Your task to perform on an android device: allow notifications from all sites in the chrome app Image 0: 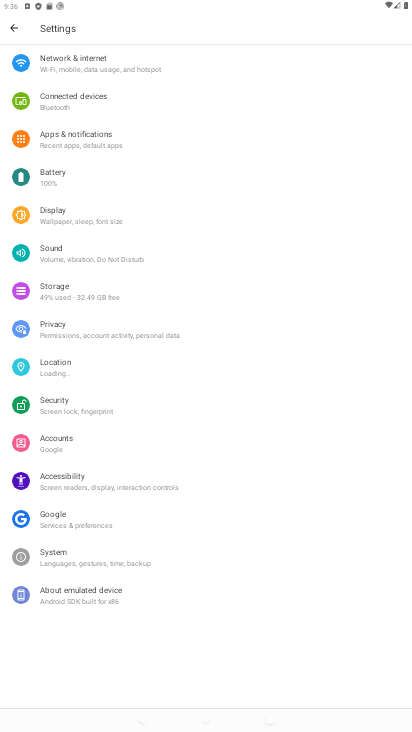
Step 0: press home button
Your task to perform on an android device: allow notifications from all sites in the chrome app Image 1: 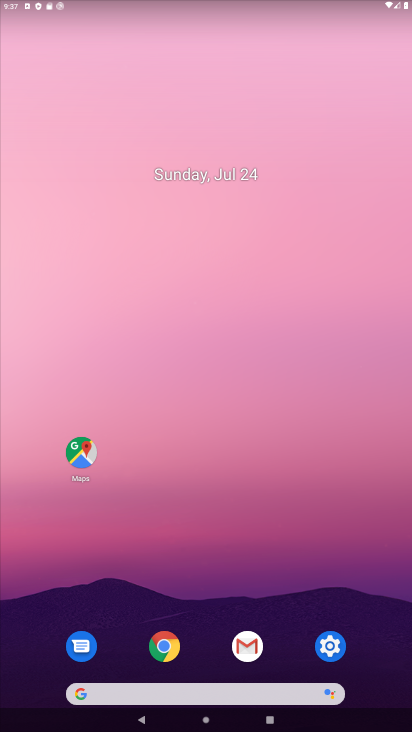
Step 1: click (163, 640)
Your task to perform on an android device: allow notifications from all sites in the chrome app Image 2: 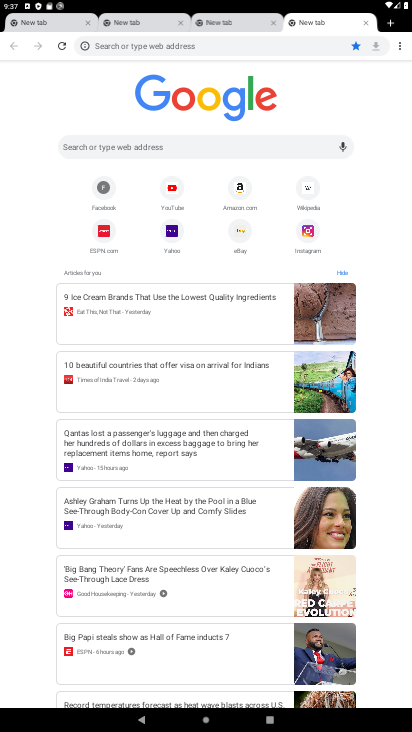
Step 2: click (398, 46)
Your task to perform on an android device: allow notifications from all sites in the chrome app Image 3: 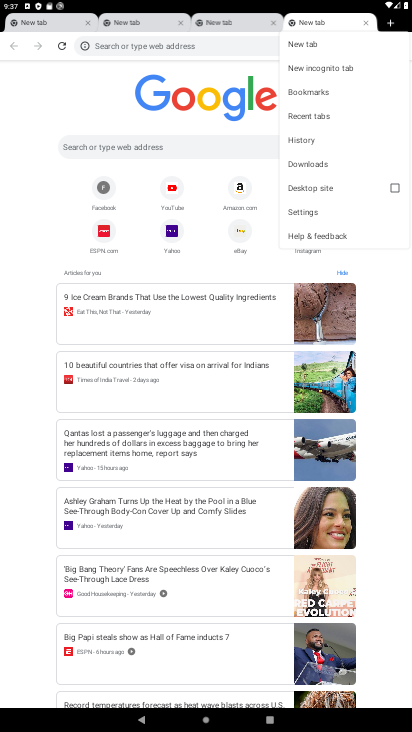
Step 3: click (308, 208)
Your task to perform on an android device: allow notifications from all sites in the chrome app Image 4: 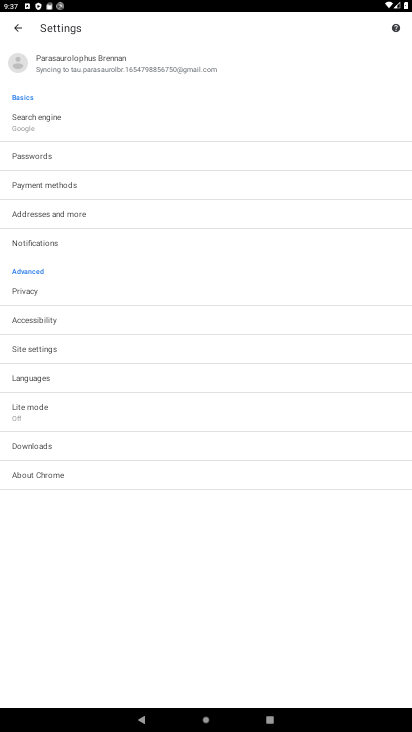
Step 4: click (62, 350)
Your task to perform on an android device: allow notifications from all sites in the chrome app Image 5: 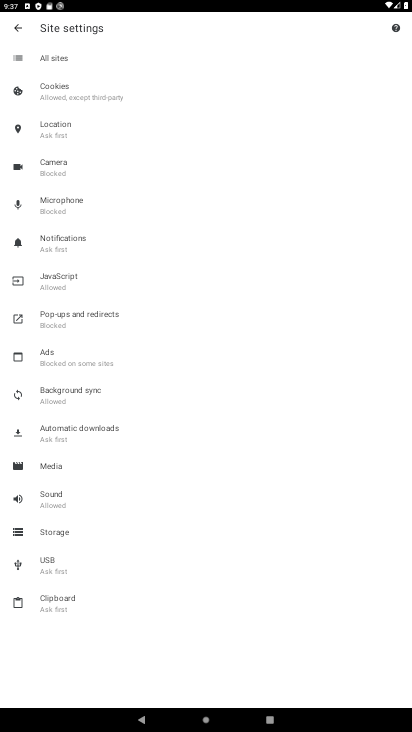
Step 5: click (89, 244)
Your task to perform on an android device: allow notifications from all sites in the chrome app Image 6: 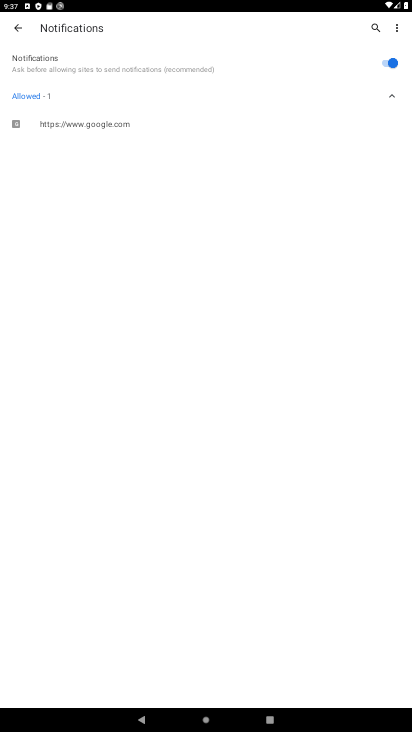
Step 6: click (365, 56)
Your task to perform on an android device: allow notifications from all sites in the chrome app Image 7: 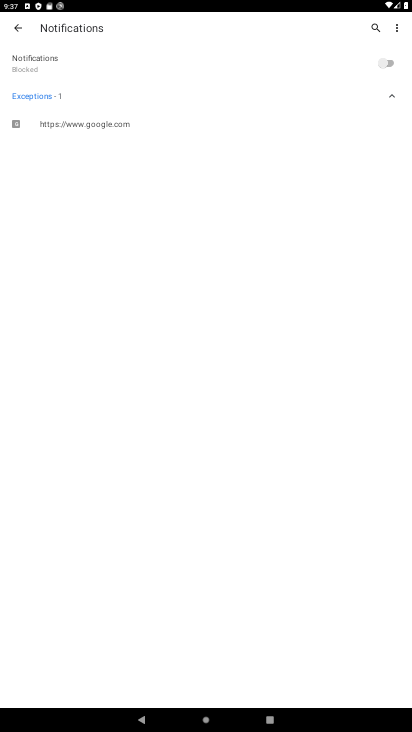
Step 7: click (367, 60)
Your task to perform on an android device: allow notifications from all sites in the chrome app Image 8: 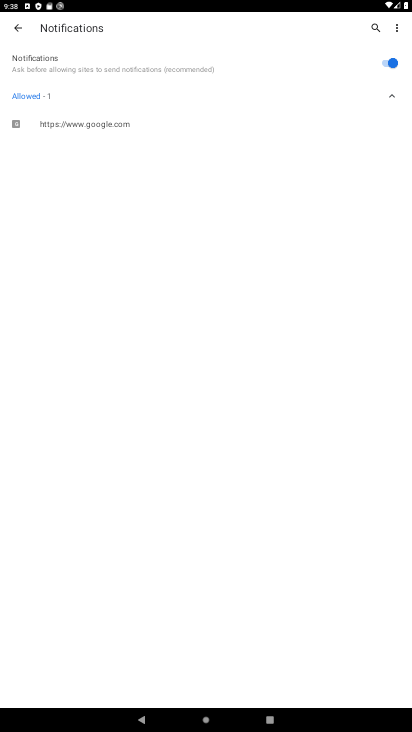
Step 8: task complete